Your task to perform on an android device: check android version Image 0: 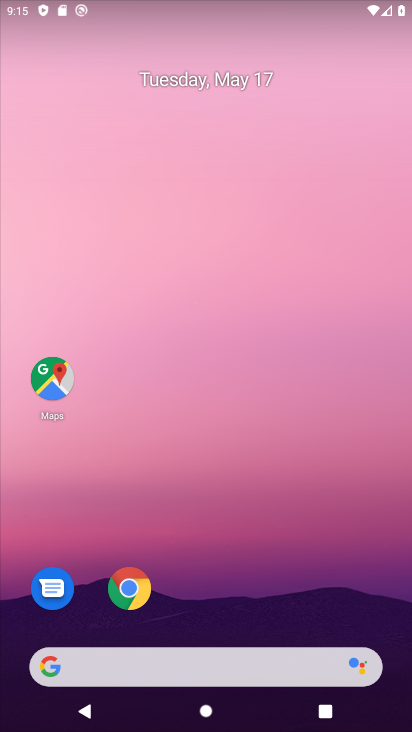
Step 0: drag from (207, 646) to (151, 54)
Your task to perform on an android device: check android version Image 1: 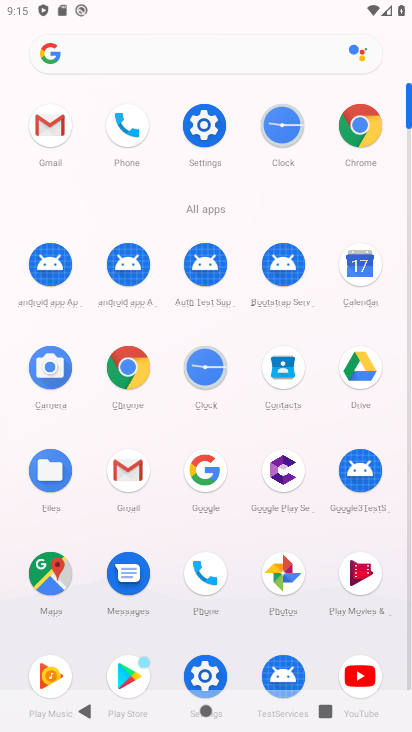
Step 1: click (195, 142)
Your task to perform on an android device: check android version Image 2: 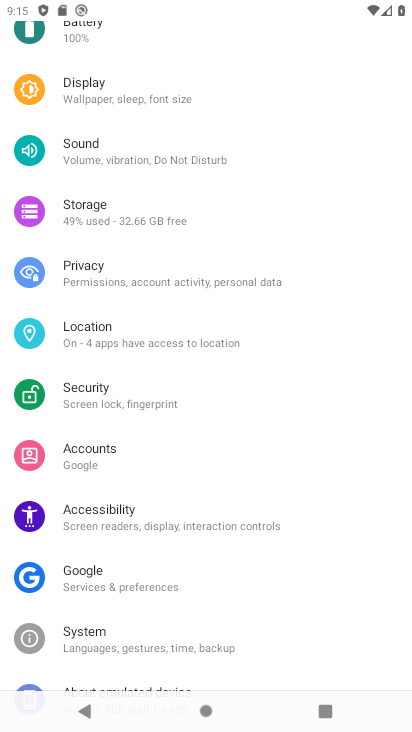
Step 2: drag from (241, 579) to (207, 41)
Your task to perform on an android device: check android version Image 3: 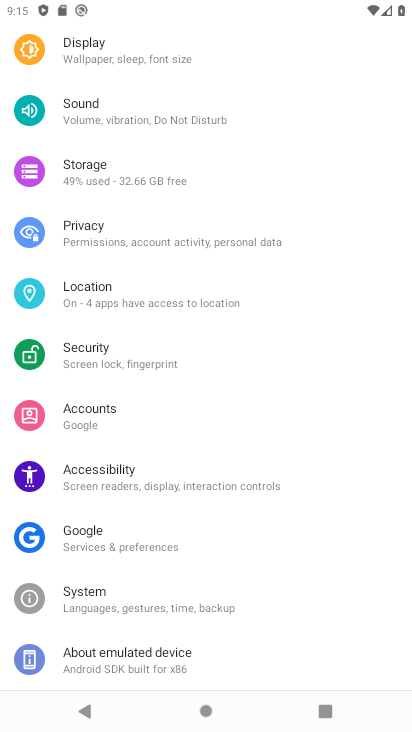
Step 3: click (123, 657)
Your task to perform on an android device: check android version Image 4: 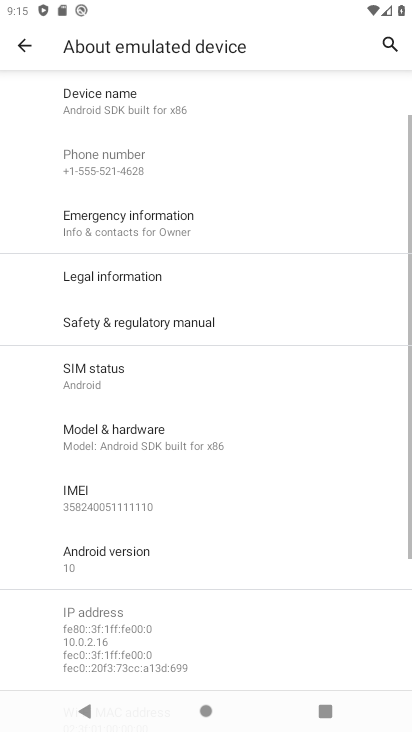
Step 4: click (122, 558)
Your task to perform on an android device: check android version Image 5: 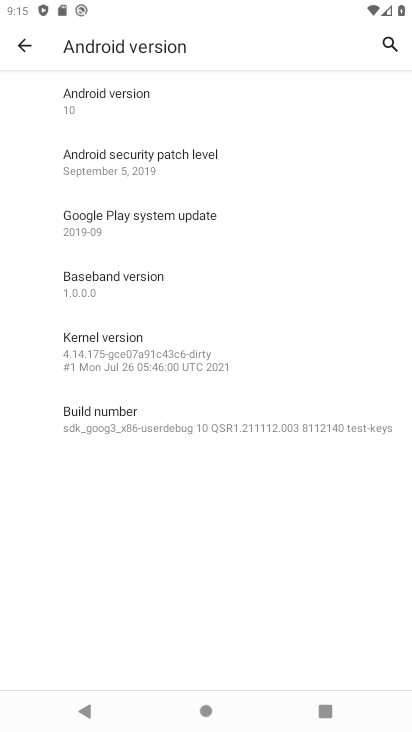
Step 5: click (191, 91)
Your task to perform on an android device: check android version Image 6: 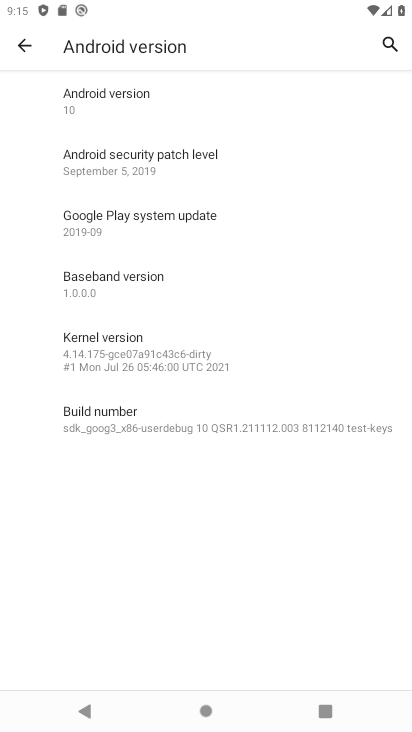
Step 6: task complete